Your task to perform on an android device: Go to Yahoo.com Image 0: 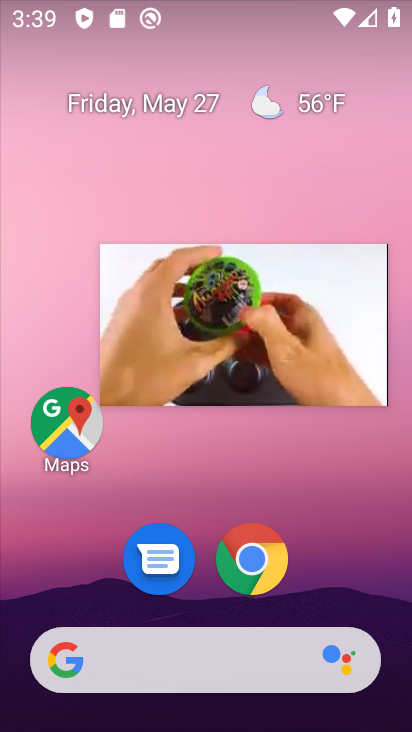
Step 0: click (373, 260)
Your task to perform on an android device: Go to Yahoo.com Image 1: 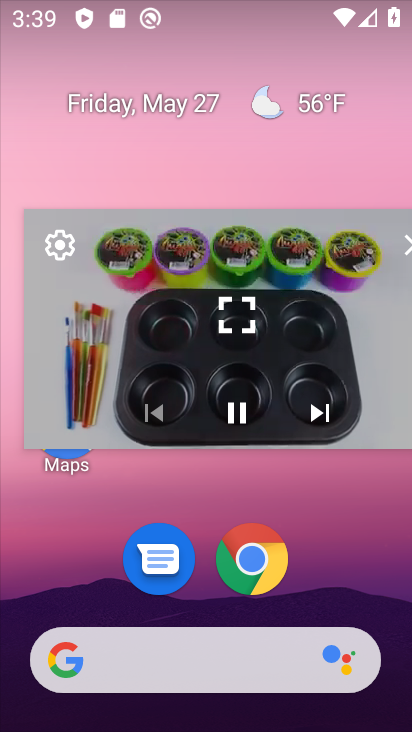
Step 1: click (403, 239)
Your task to perform on an android device: Go to Yahoo.com Image 2: 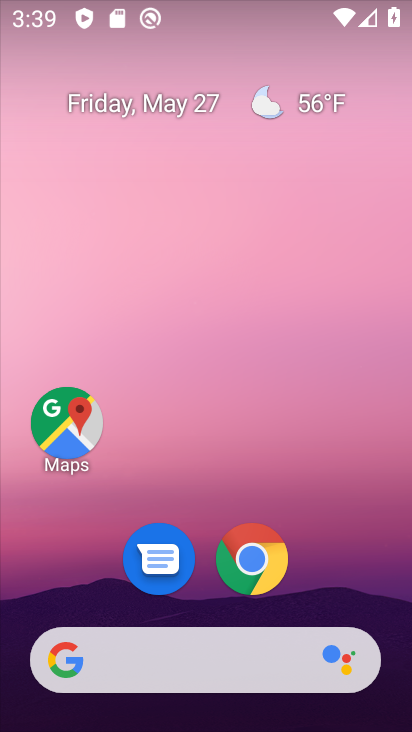
Step 2: click (257, 579)
Your task to perform on an android device: Go to Yahoo.com Image 3: 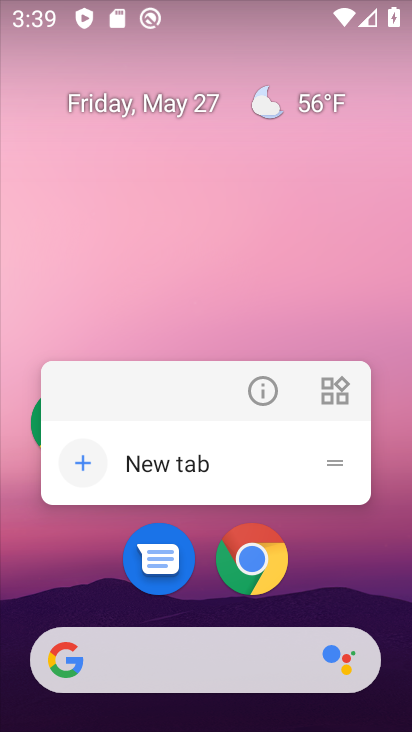
Step 3: click (270, 560)
Your task to perform on an android device: Go to Yahoo.com Image 4: 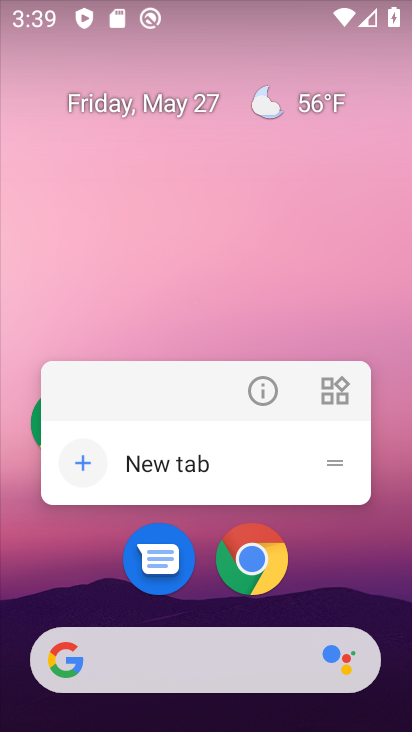
Step 4: click (258, 546)
Your task to perform on an android device: Go to Yahoo.com Image 5: 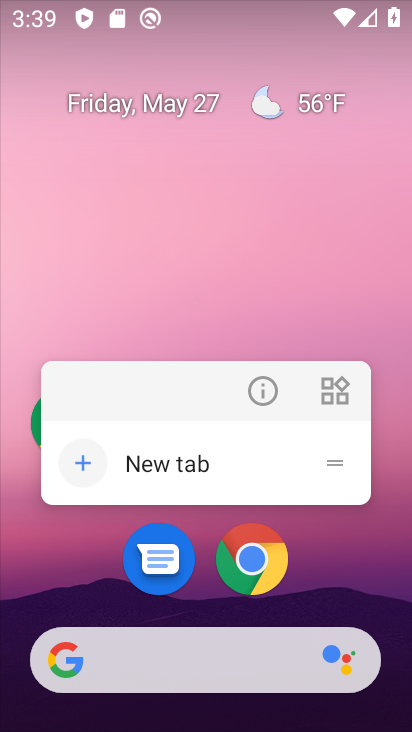
Step 5: click (258, 551)
Your task to perform on an android device: Go to Yahoo.com Image 6: 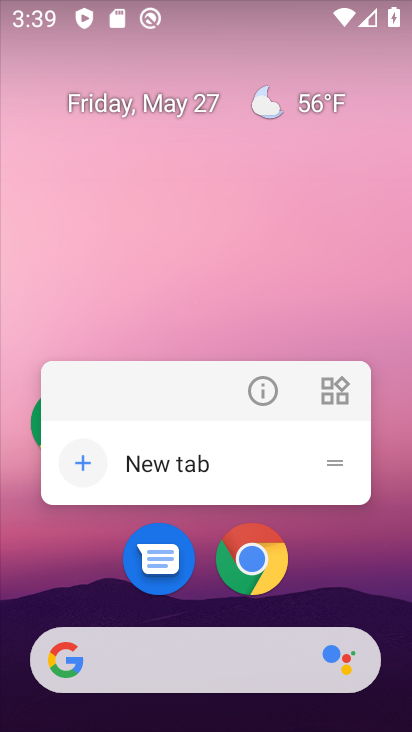
Step 6: click (239, 572)
Your task to perform on an android device: Go to Yahoo.com Image 7: 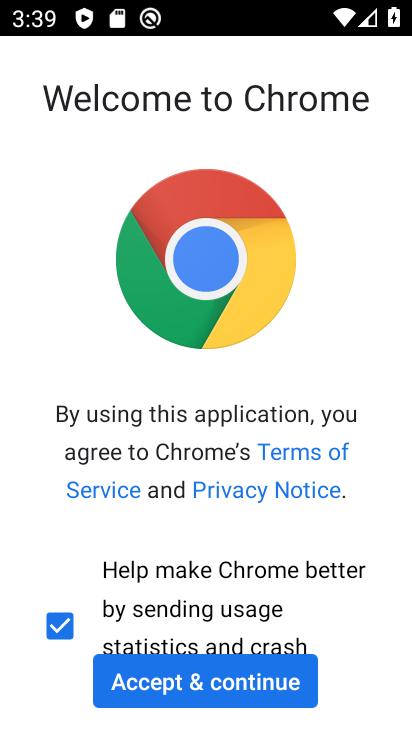
Step 7: click (247, 675)
Your task to perform on an android device: Go to Yahoo.com Image 8: 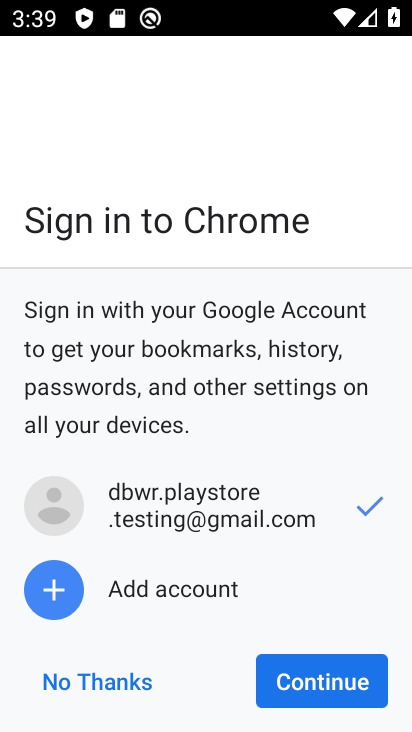
Step 8: click (290, 677)
Your task to perform on an android device: Go to Yahoo.com Image 9: 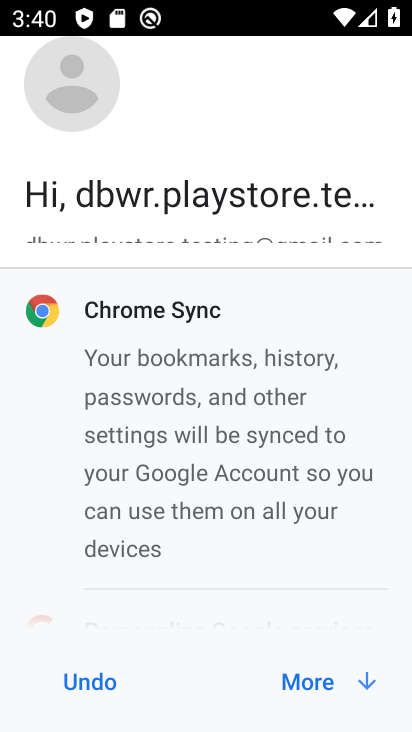
Step 9: click (289, 675)
Your task to perform on an android device: Go to Yahoo.com Image 10: 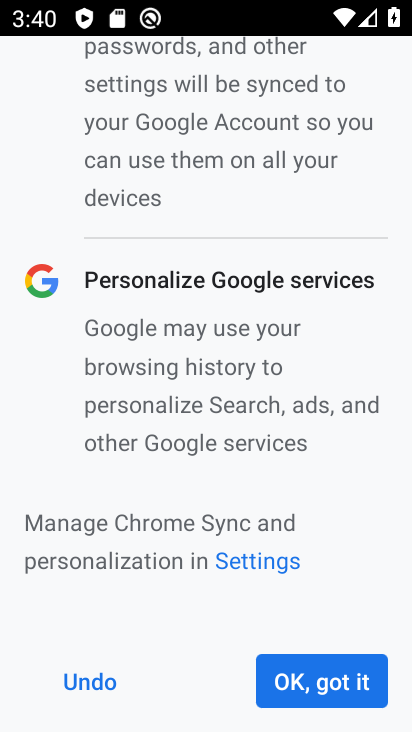
Step 10: click (289, 676)
Your task to perform on an android device: Go to Yahoo.com Image 11: 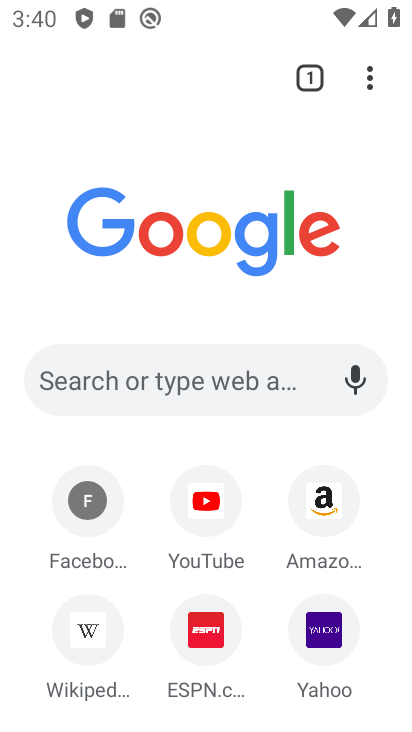
Step 11: click (327, 635)
Your task to perform on an android device: Go to Yahoo.com Image 12: 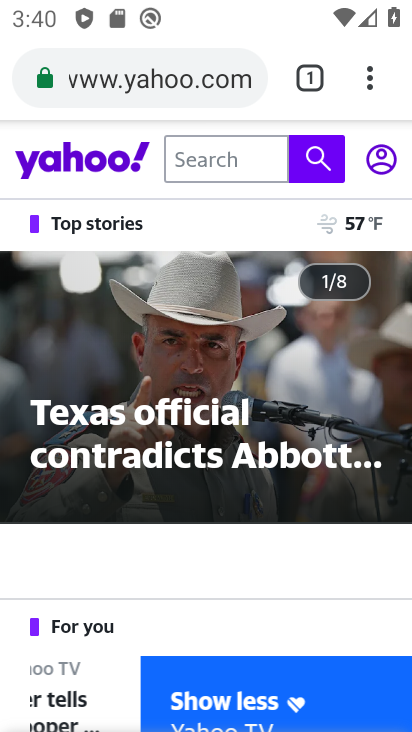
Step 12: task complete